Your task to perform on an android device: set the timer Image 0: 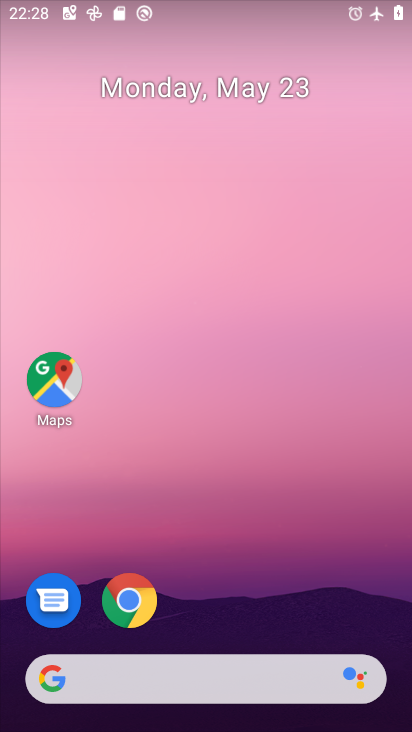
Step 0: drag from (226, 727) to (204, 169)
Your task to perform on an android device: set the timer Image 1: 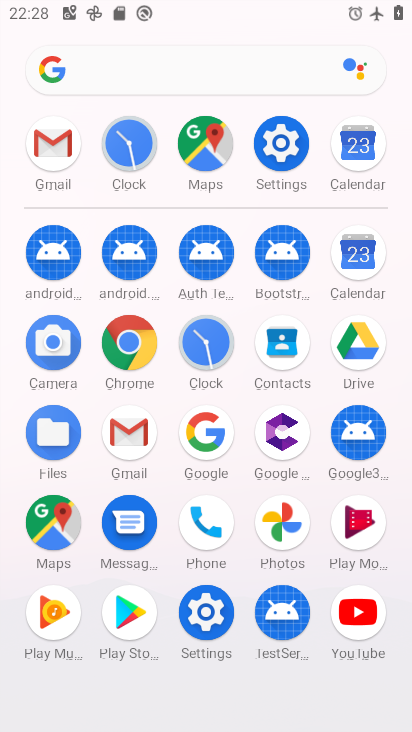
Step 1: click (216, 337)
Your task to perform on an android device: set the timer Image 2: 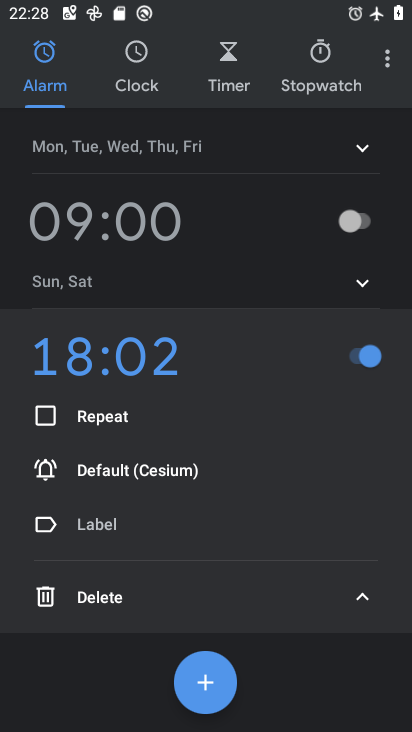
Step 2: click (230, 63)
Your task to perform on an android device: set the timer Image 3: 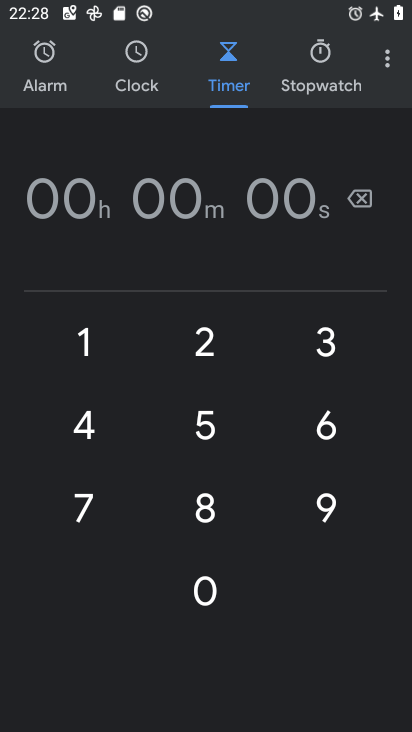
Step 3: click (208, 343)
Your task to perform on an android device: set the timer Image 4: 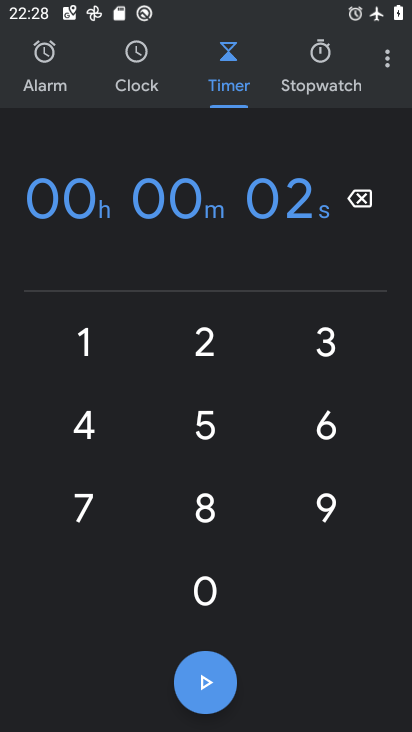
Step 4: click (76, 345)
Your task to perform on an android device: set the timer Image 5: 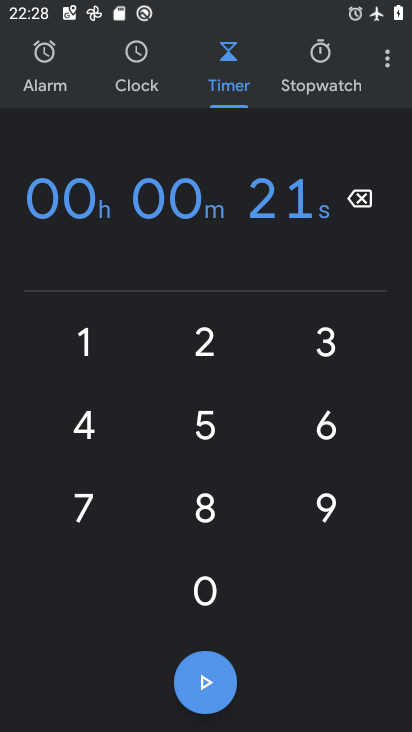
Step 5: click (88, 424)
Your task to perform on an android device: set the timer Image 6: 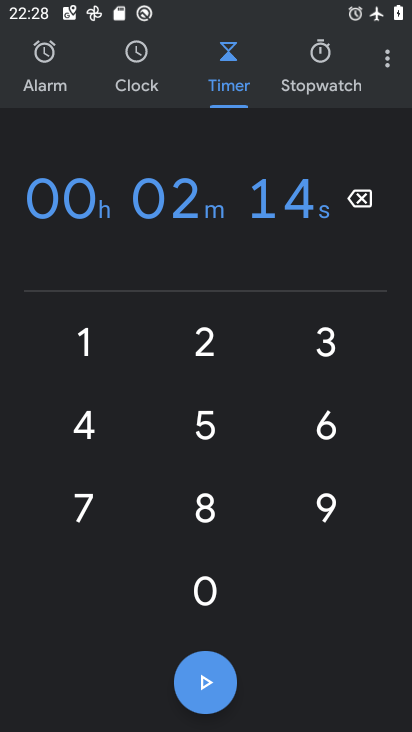
Step 6: click (202, 508)
Your task to perform on an android device: set the timer Image 7: 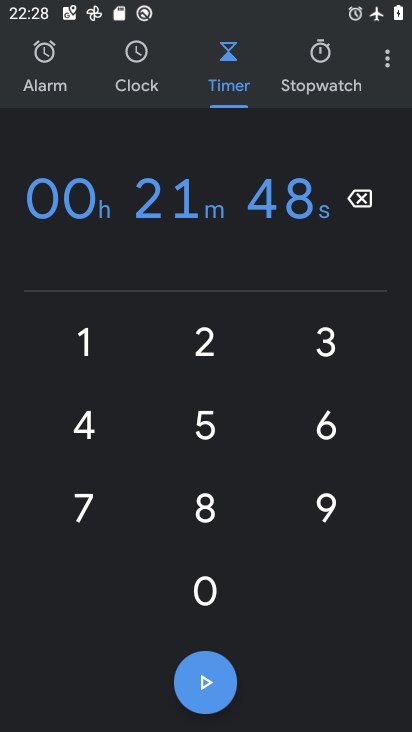
Step 7: click (206, 676)
Your task to perform on an android device: set the timer Image 8: 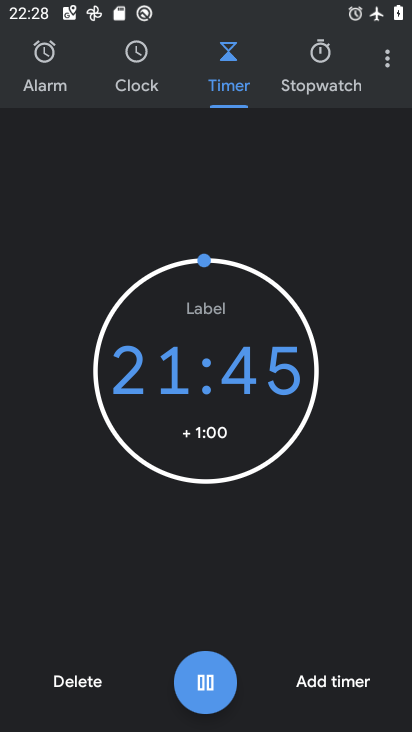
Step 8: task complete